Your task to perform on an android device: Open Chrome and go to the settings page Image 0: 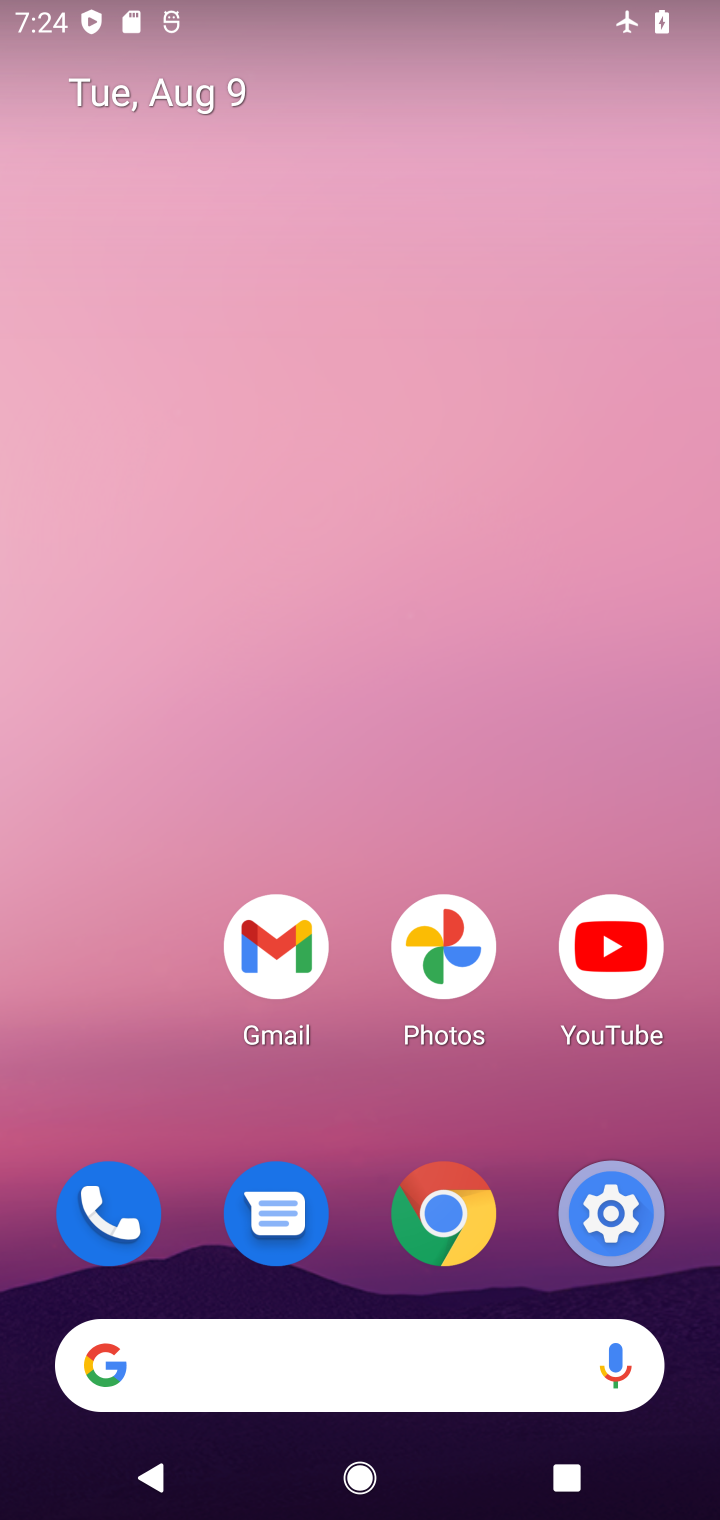
Step 0: click (446, 1250)
Your task to perform on an android device: Open Chrome and go to the settings page Image 1: 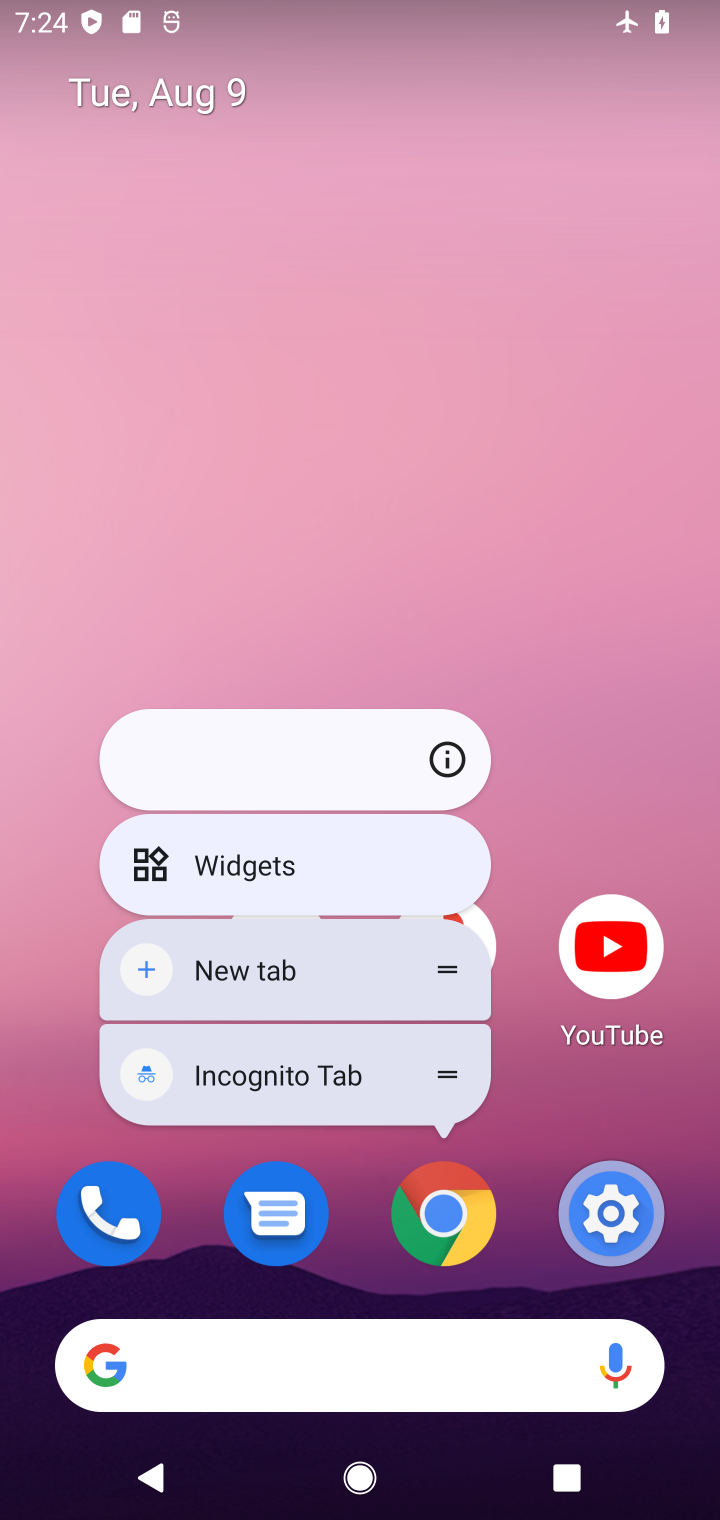
Step 1: click (446, 1250)
Your task to perform on an android device: Open Chrome and go to the settings page Image 2: 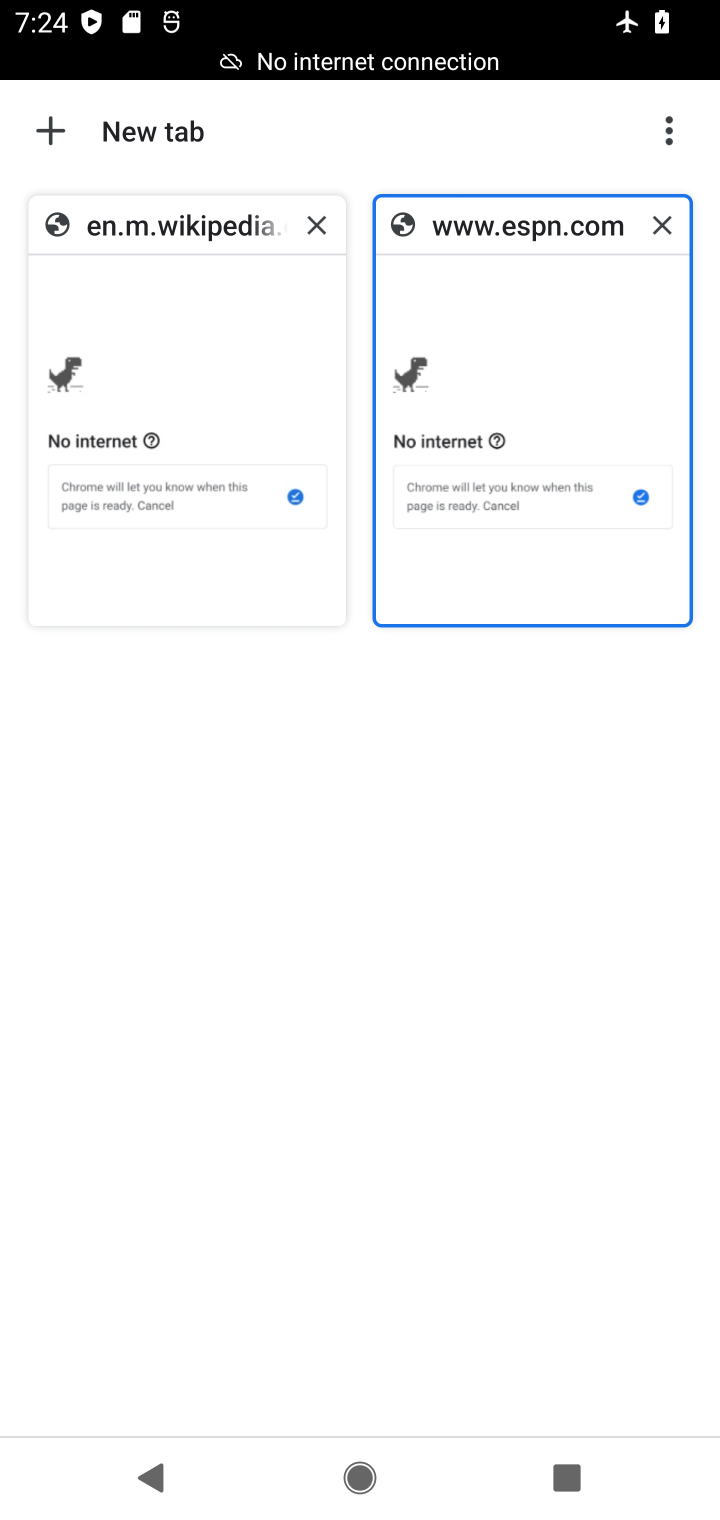
Step 2: click (234, 765)
Your task to perform on an android device: Open Chrome and go to the settings page Image 3: 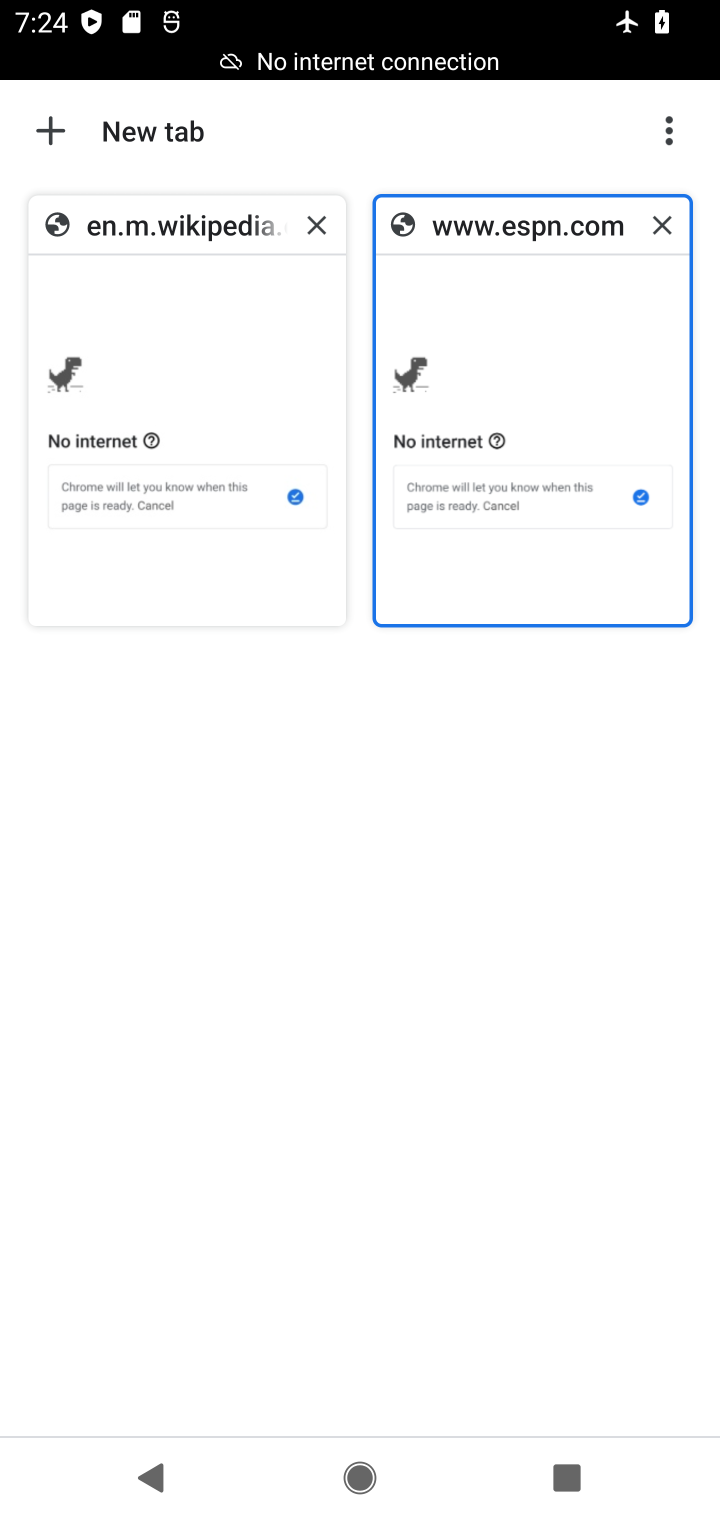
Step 3: click (50, 135)
Your task to perform on an android device: Open Chrome and go to the settings page Image 4: 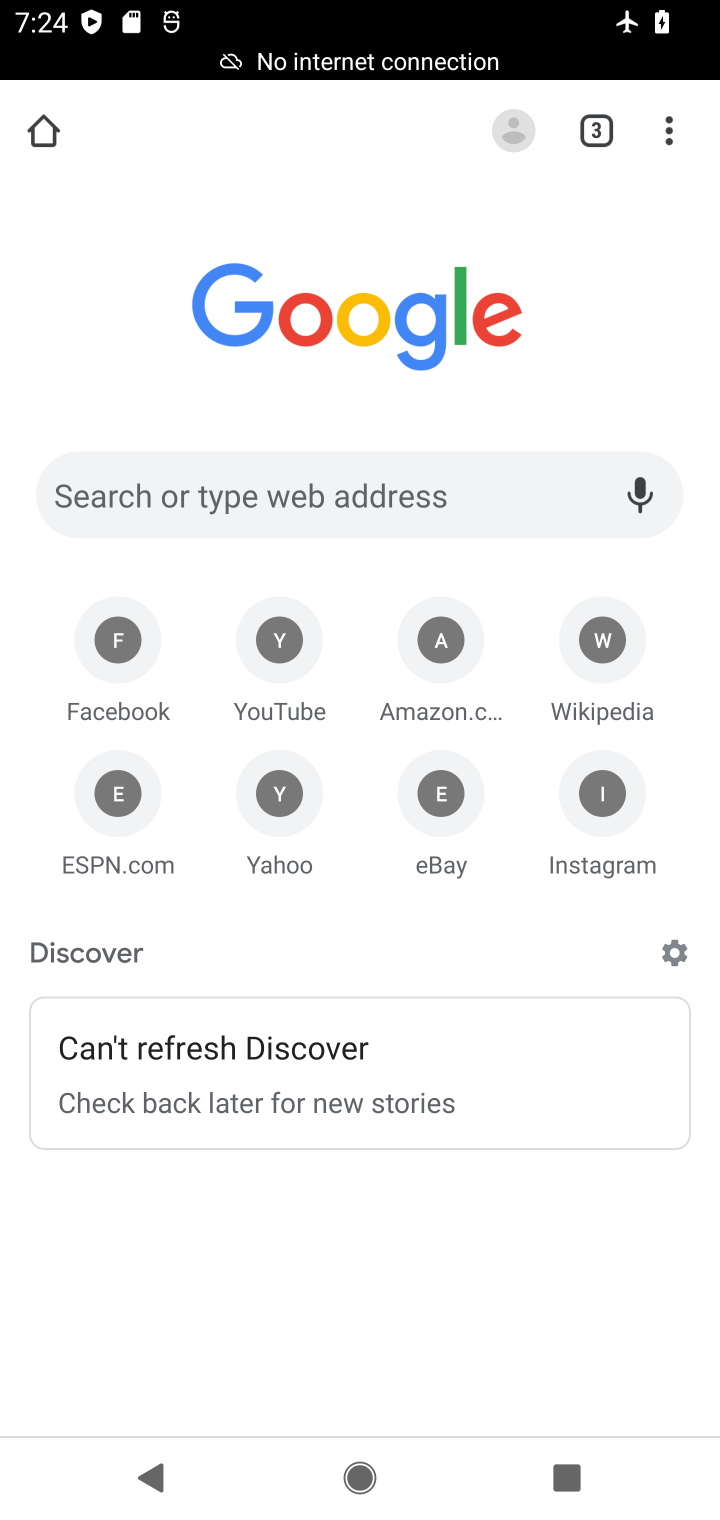
Step 4: click (670, 147)
Your task to perform on an android device: Open Chrome and go to the settings page Image 5: 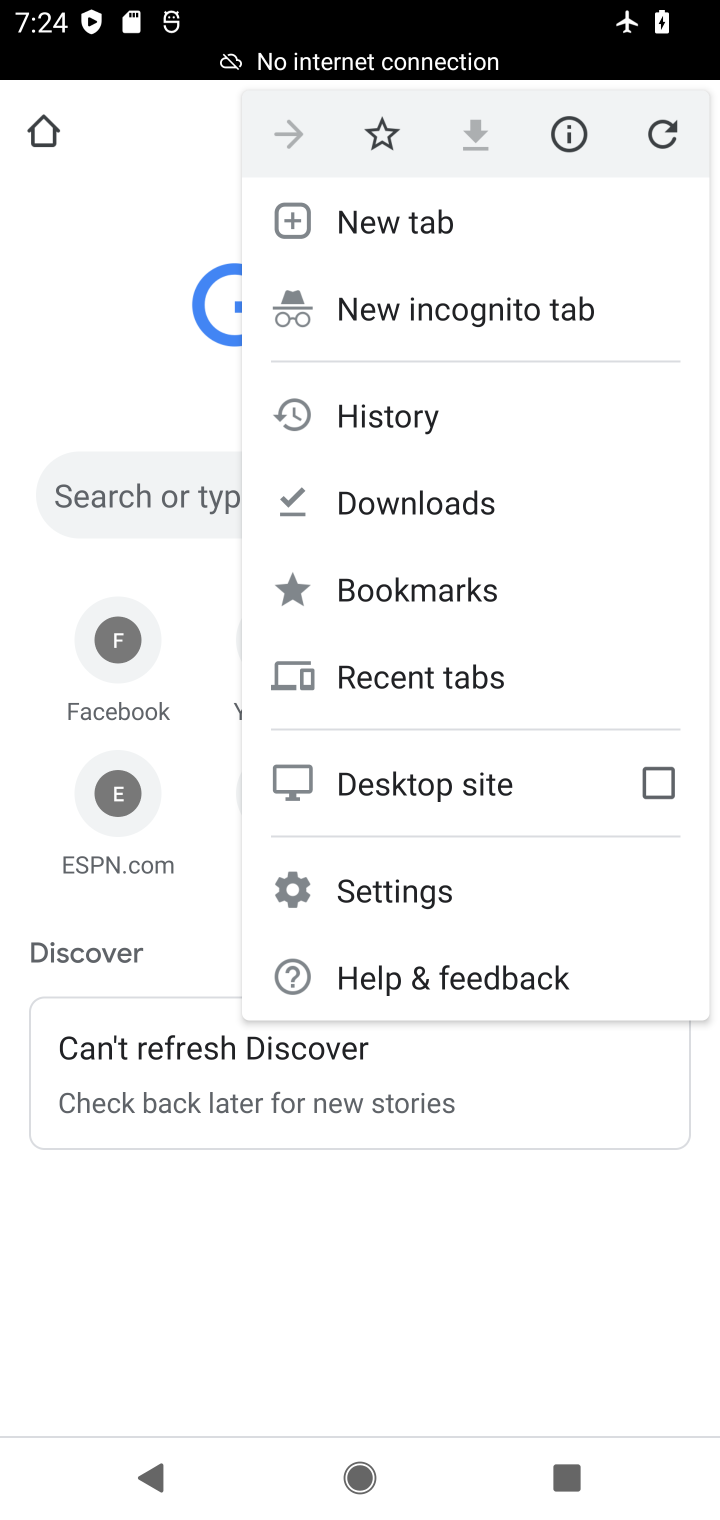
Step 5: click (317, 888)
Your task to perform on an android device: Open Chrome and go to the settings page Image 6: 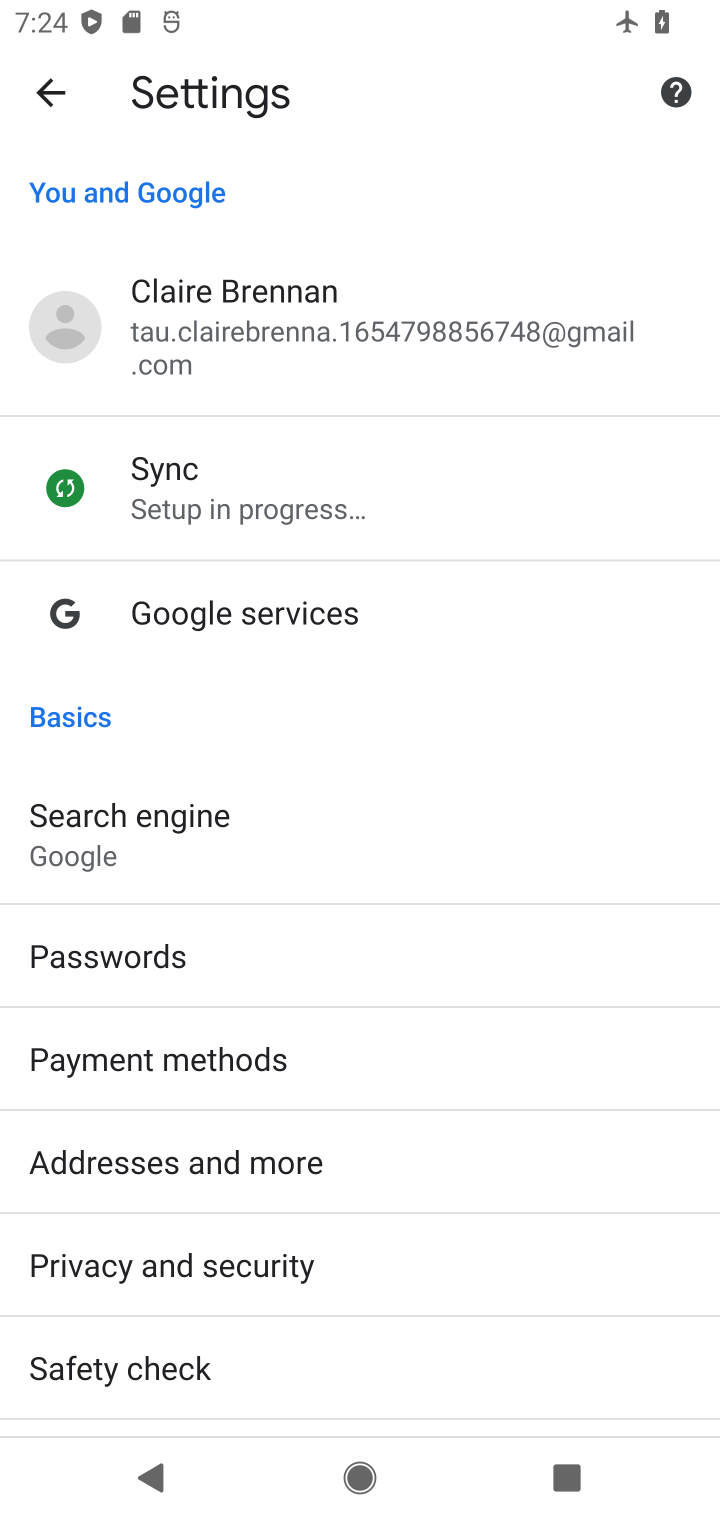
Step 6: task complete